Your task to perform on an android device: Go to Android settings Image 0: 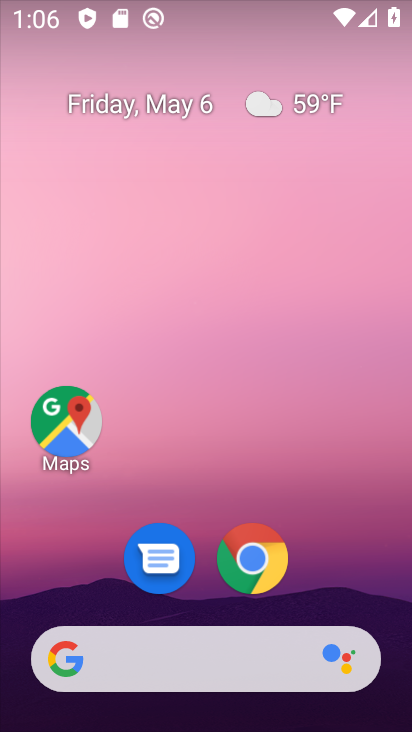
Step 0: drag from (203, 726) to (198, 239)
Your task to perform on an android device: Go to Android settings Image 1: 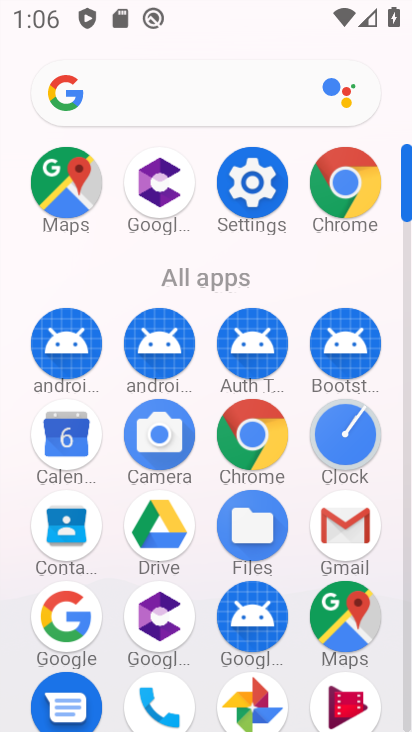
Step 1: click (254, 180)
Your task to perform on an android device: Go to Android settings Image 2: 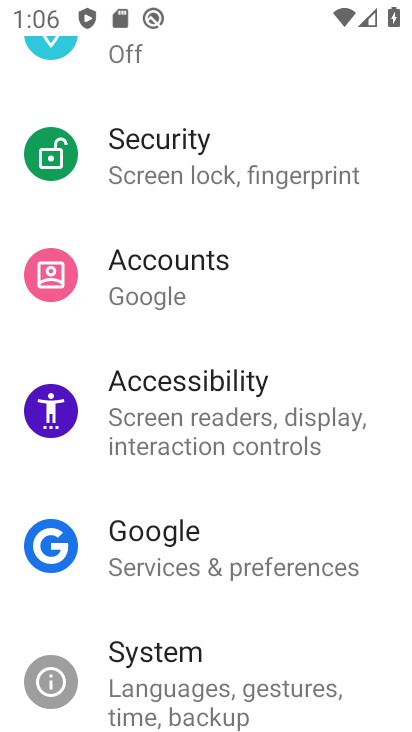
Step 2: task complete